Your task to perform on an android device: uninstall "Google Chat" Image 0: 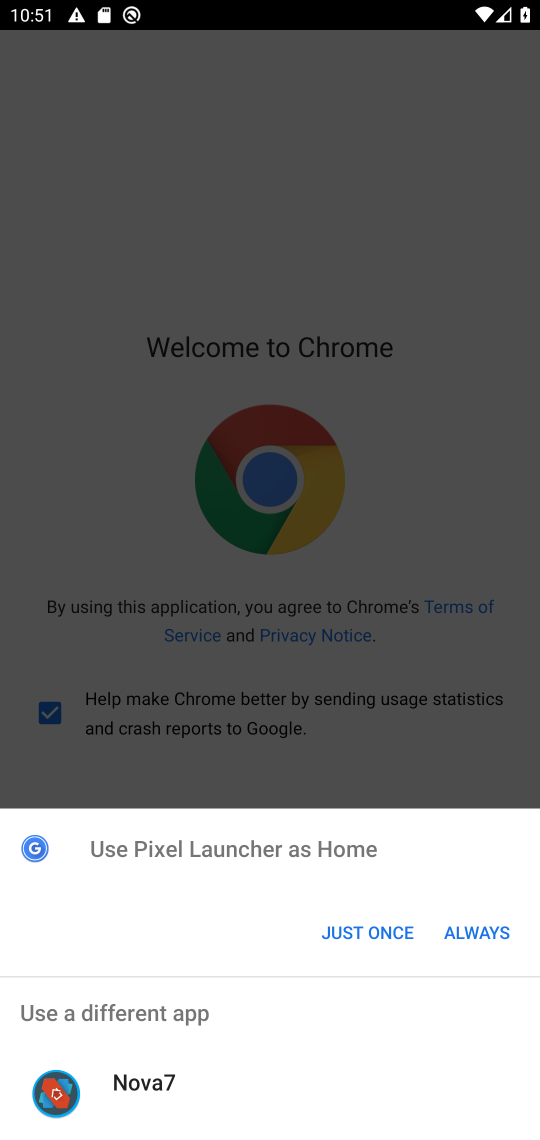
Step 0: click (390, 947)
Your task to perform on an android device: uninstall "Google Chat" Image 1: 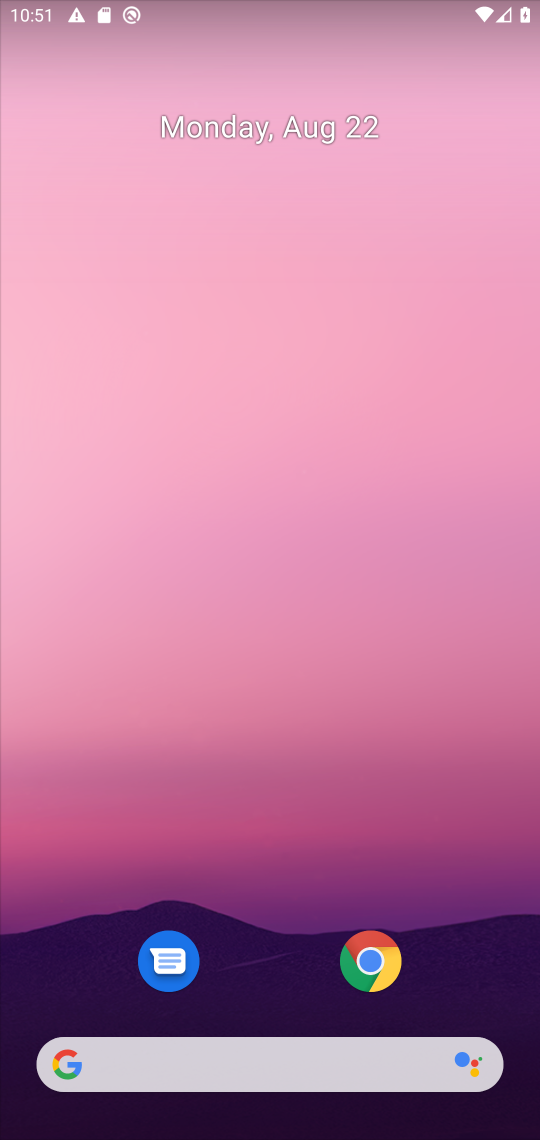
Step 1: drag from (255, 1036) to (292, 294)
Your task to perform on an android device: uninstall "Google Chat" Image 2: 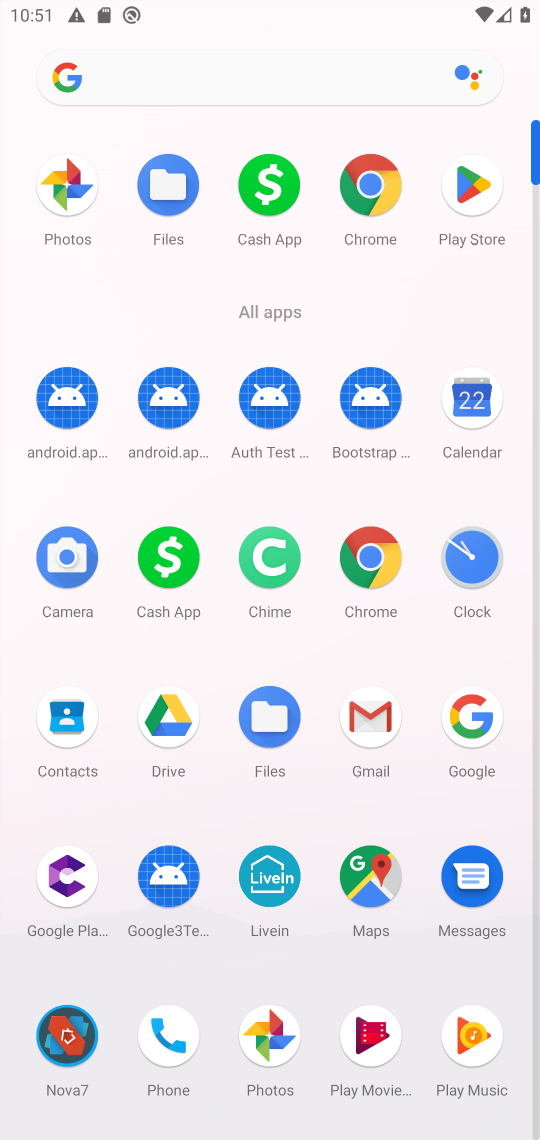
Step 2: click (474, 210)
Your task to perform on an android device: uninstall "Google Chat" Image 3: 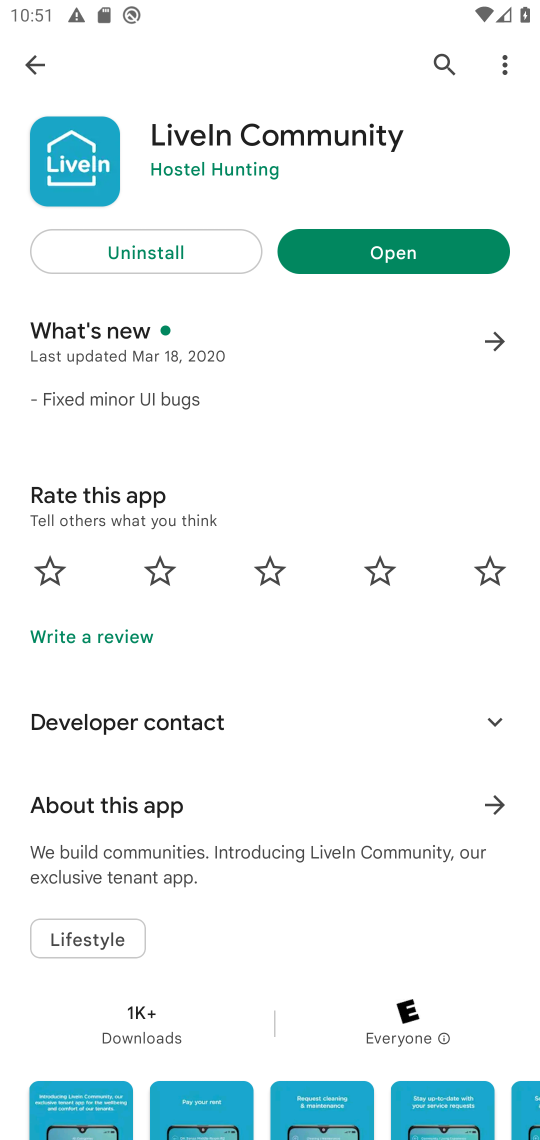
Step 3: click (430, 89)
Your task to perform on an android device: uninstall "Google Chat" Image 4: 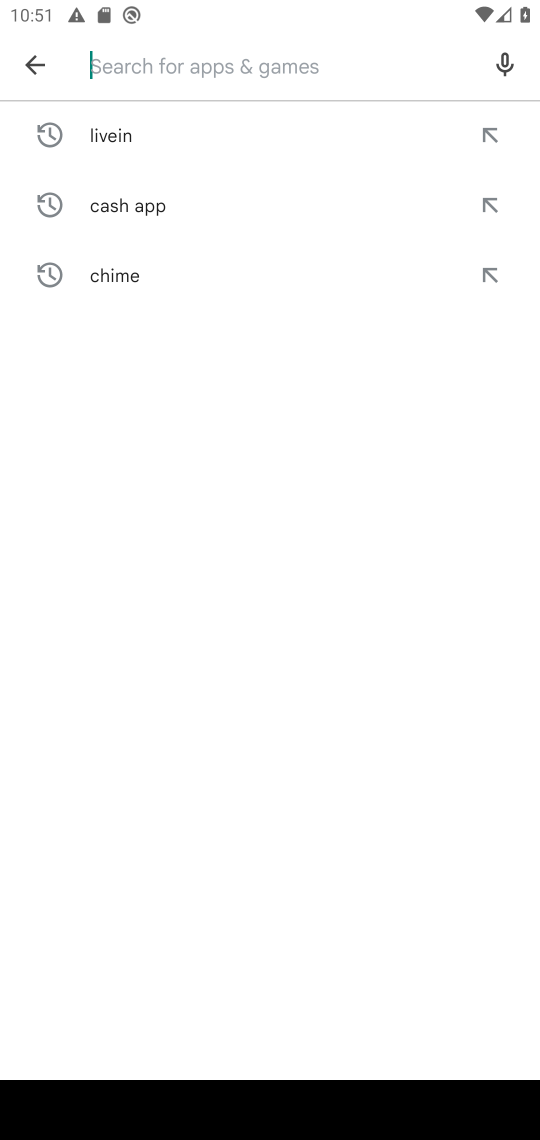
Step 4: type "google chat"
Your task to perform on an android device: uninstall "Google Chat" Image 5: 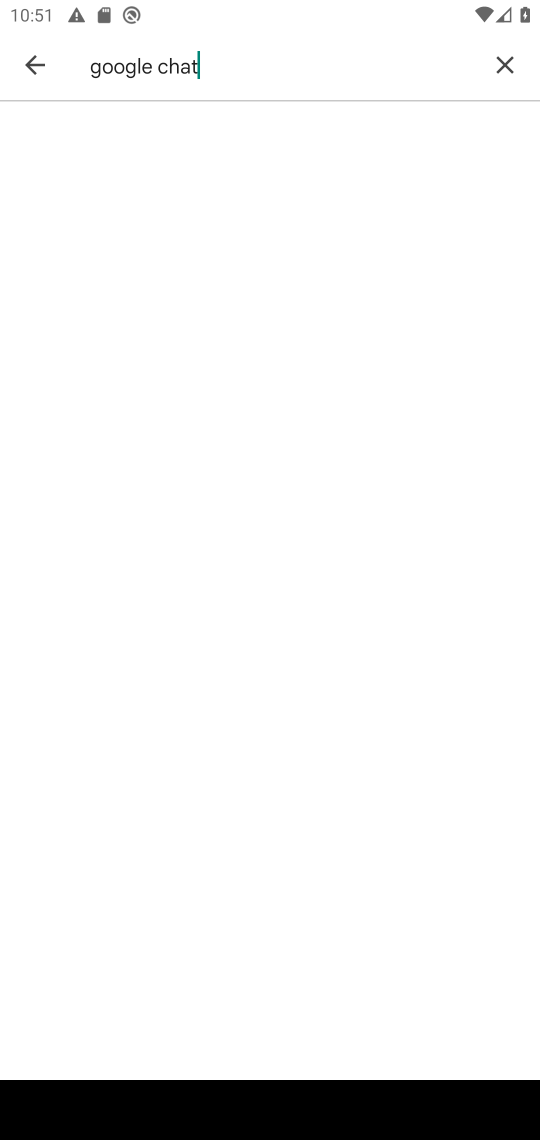
Step 5: task complete